Your task to perform on an android device: show emergency info Image 0: 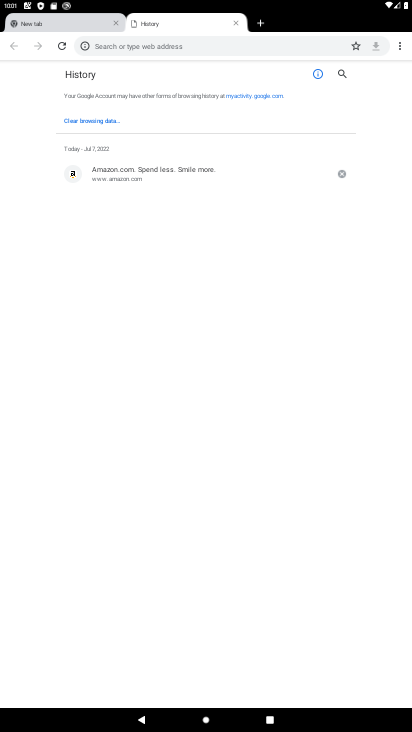
Step 0: press home button
Your task to perform on an android device: show emergency info Image 1: 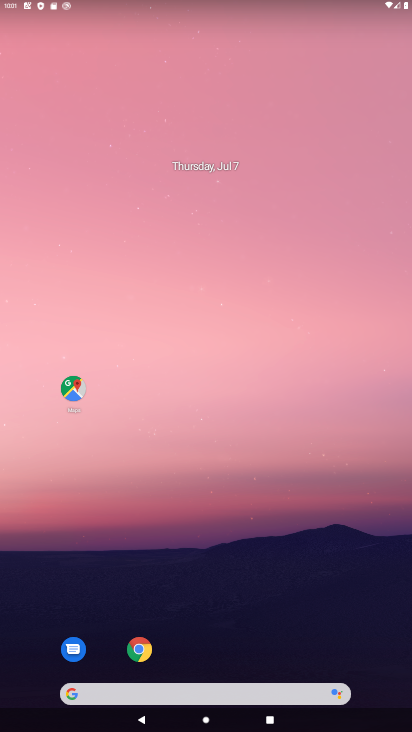
Step 1: task complete